Your task to perform on an android device: find photos in the google photos app Image 0: 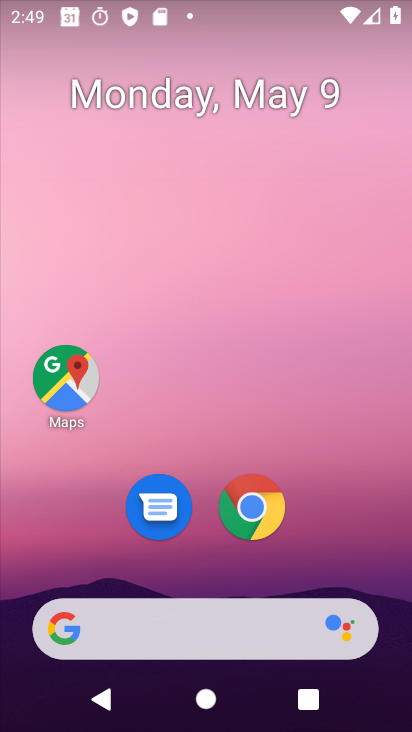
Step 0: click (403, 196)
Your task to perform on an android device: find photos in the google photos app Image 1: 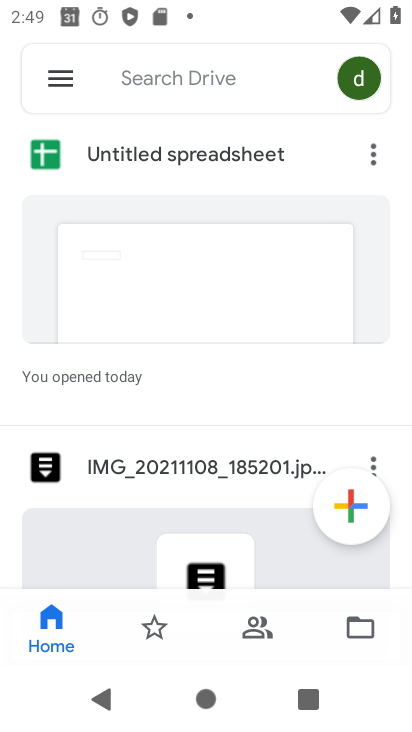
Step 1: click (326, 134)
Your task to perform on an android device: find photos in the google photos app Image 2: 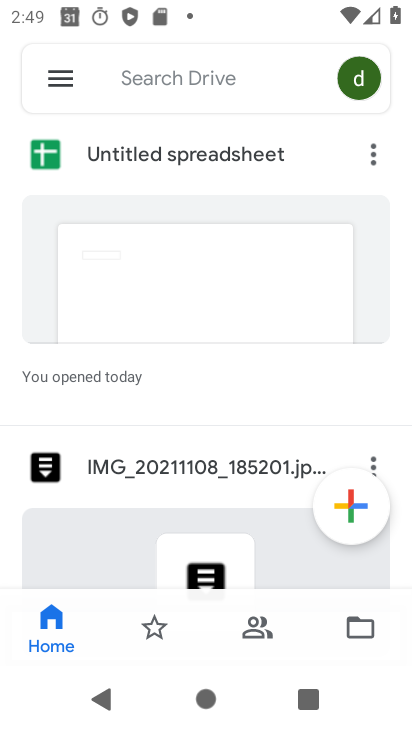
Step 2: press home button
Your task to perform on an android device: find photos in the google photos app Image 3: 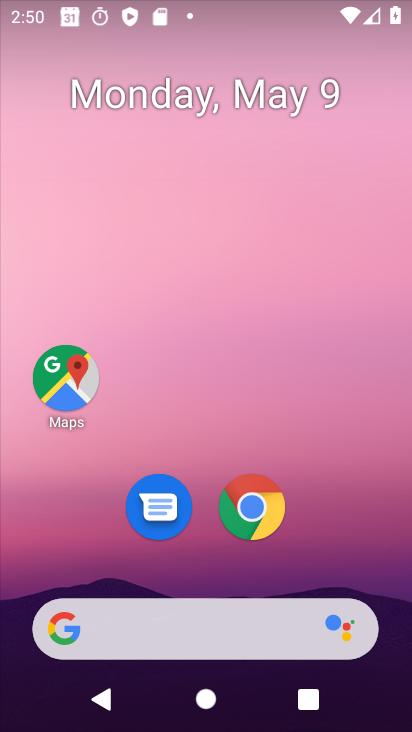
Step 3: drag from (197, 607) to (306, 231)
Your task to perform on an android device: find photos in the google photos app Image 4: 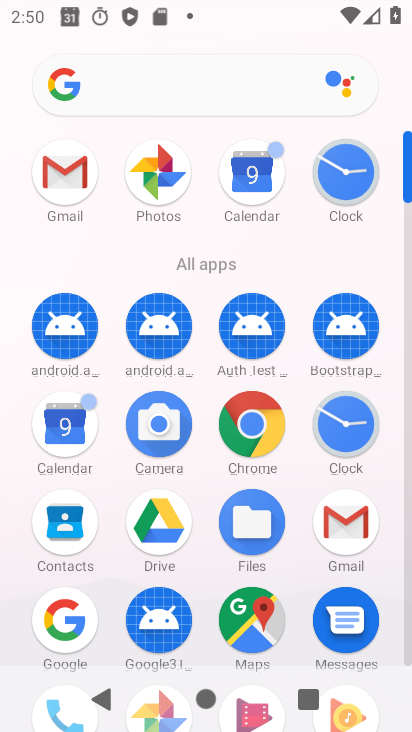
Step 4: click (160, 154)
Your task to perform on an android device: find photos in the google photos app Image 5: 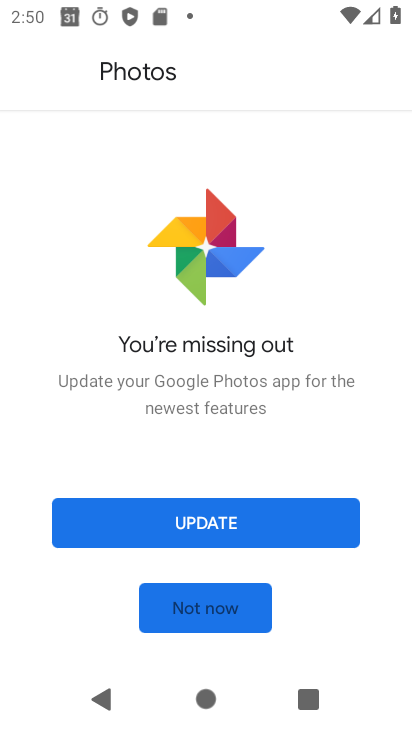
Step 5: click (197, 593)
Your task to perform on an android device: find photos in the google photos app Image 6: 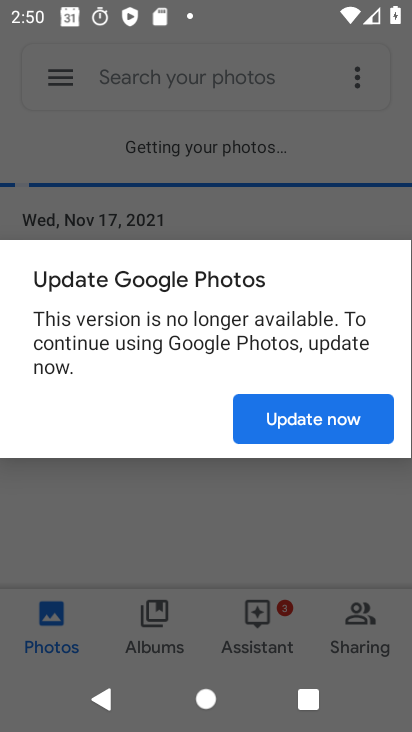
Step 6: task complete